Your task to perform on an android device: Open Google Chrome and open the bookmarks view Image 0: 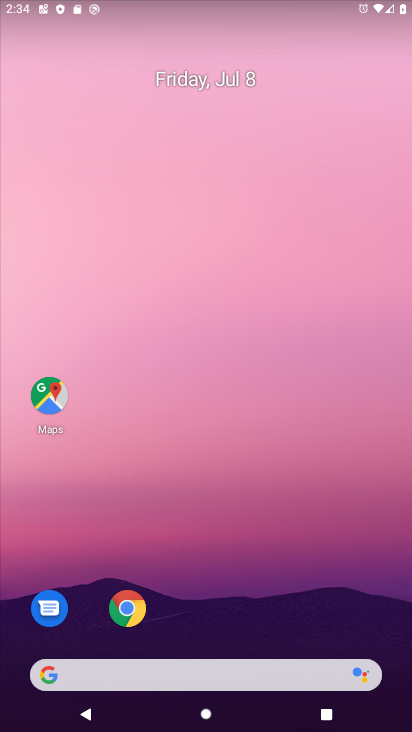
Step 0: click (135, 623)
Your task to perform on an android device: Open Google Chrome and open the bookmarks view Image 1: 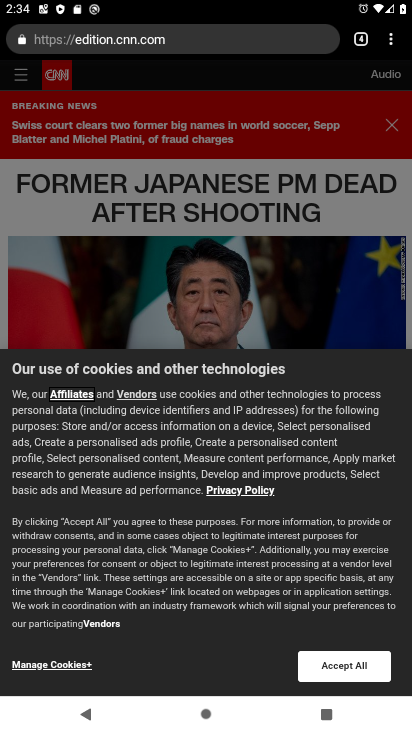
Step 1: click (402, 37)
Your task to perform on an android device: Open Google Chrome and open the bookmarks view Image 2: 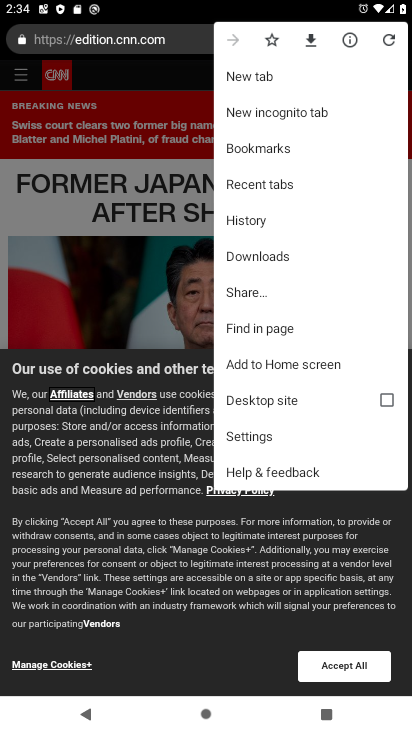
Step 2: click (303, 152)
Your task to perform on an android device: Open Google Chrome and open the bookmarks view Image 3: 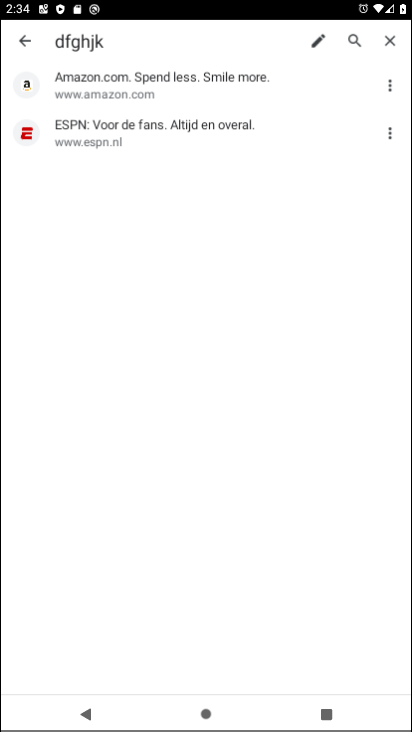
Step 3: task complete